Your task to perform on an android device: Play the last video I watched on Youtube Image 0: 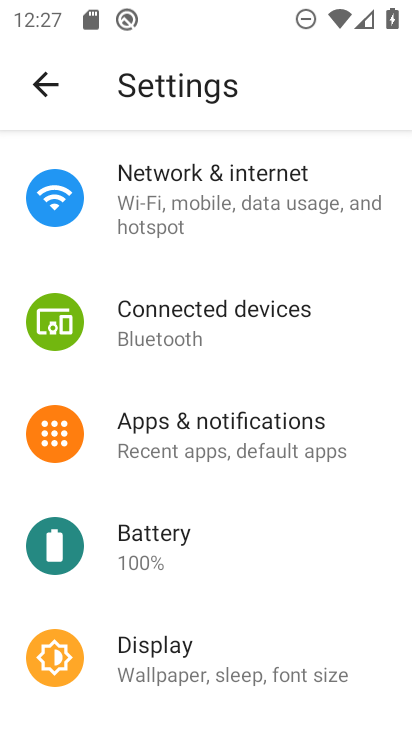
Step 0: press home button
Your task to perform on an android device: Play the last video I watched on Youtube Image 1: 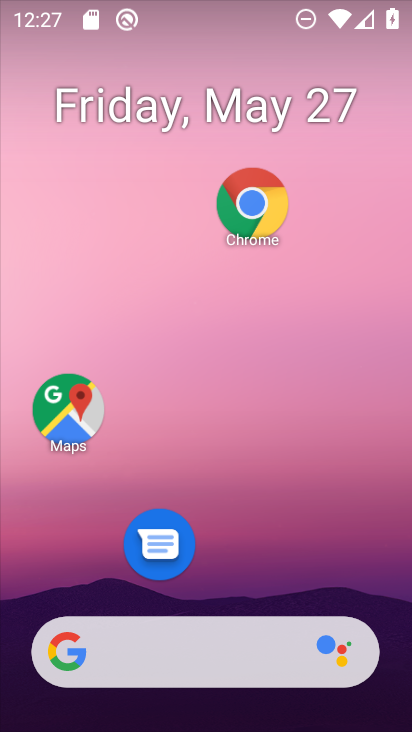
Step 1: drag from (235, 540) to (218, 149)
Your task to perform on an android device: Play the last video I watched on Youtube Image 2: 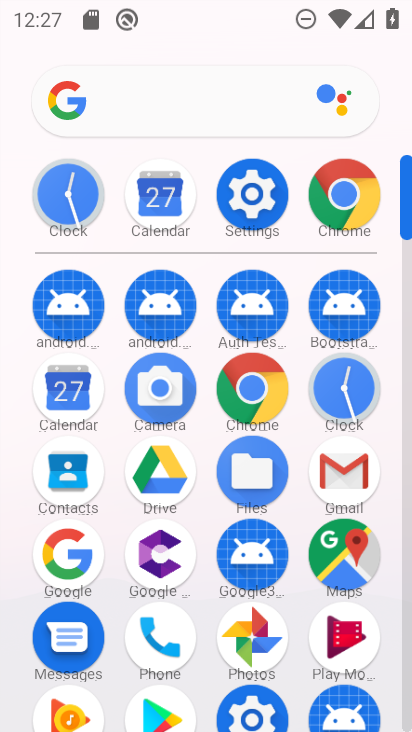
Step 2: drag from (202, 637) to (211, 364)
Your task to perform on an android device: Play the last video I watched on Youtube Image 3: 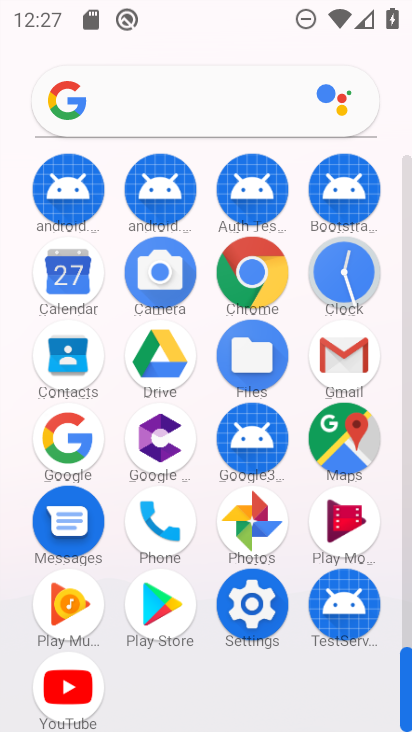
Step 3: click (64, 697)
Your task to perform on an android device: Play the last video I watched on Youtube Image 4: 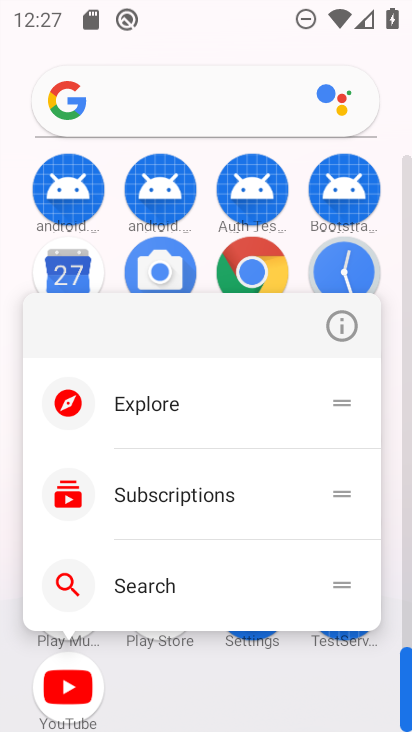
Step 4: click (347, 318)
Your task to perform on an android device: Play the last video I watched on Youtube Image 5: 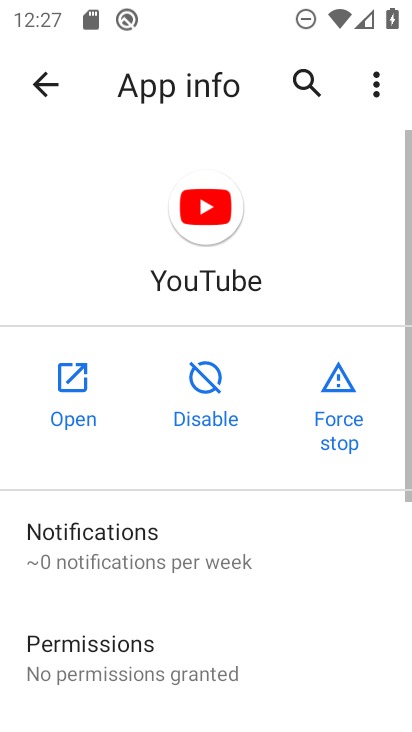
Step 5: click (71, 381)
Your task to perform on an android device: Play the last video I watched on Youtube Image 6: 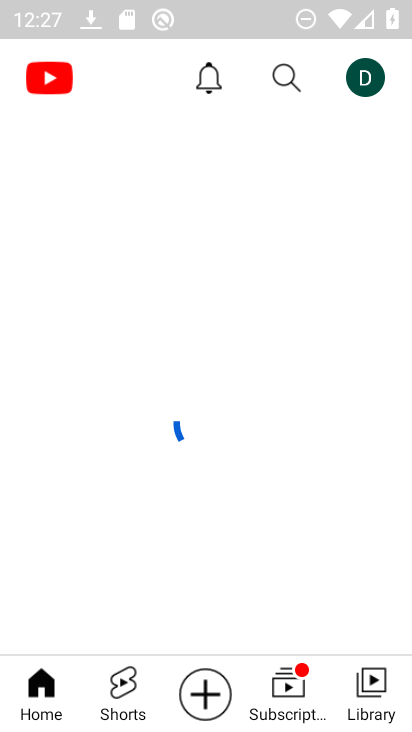
Step 6: click (340, 693)
Your task to perform on an android device: Play the last video I watched on Youtube Image 7: 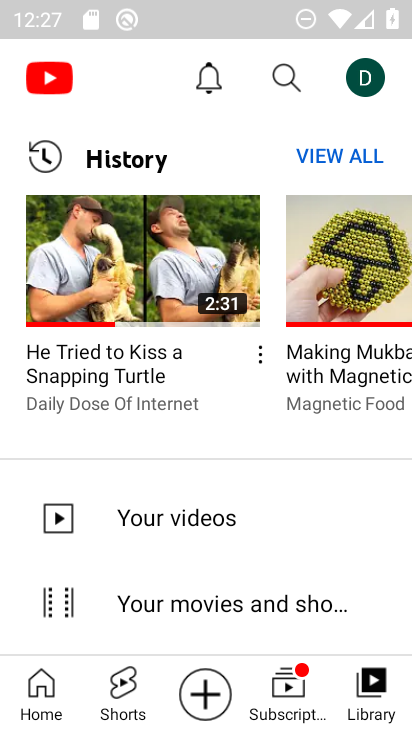
Step 7: drag from (333, 312) to (231, 308)
Your task to perform on an android device: Play the last video I watched on Youtube Image 8: 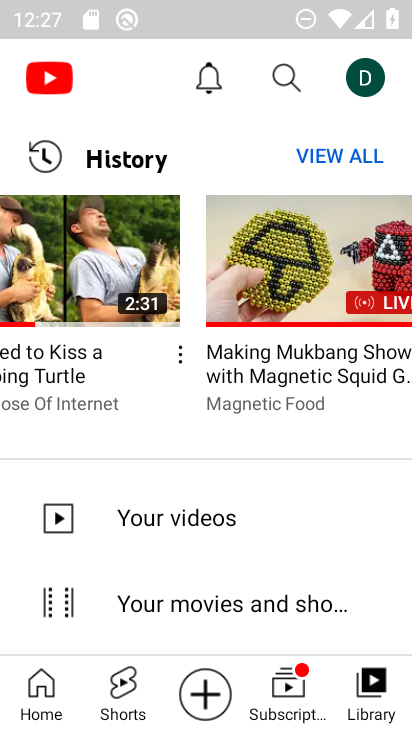
Step 8: click (97, 275)
Your task to perform on an android device: Play the last video I watched on Youtube Image 9: 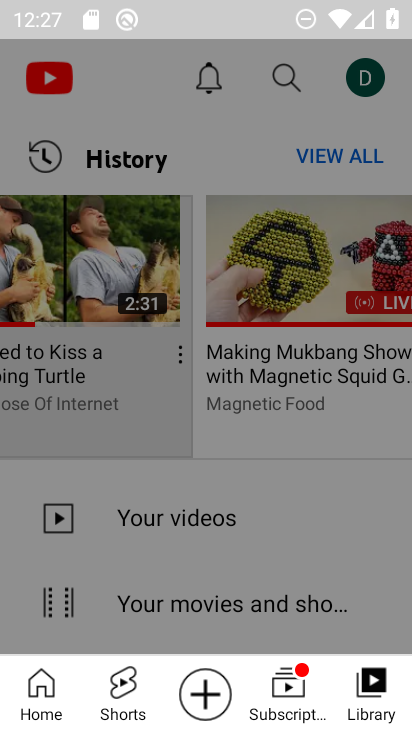
Step 9: task complete